Your task to perform on an android device: Go to internet settings Image 0: 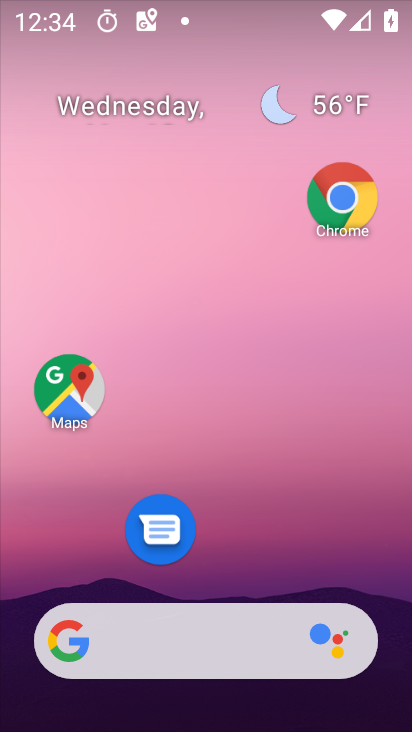
Step 0: drag from (208, 10) to (222, 532)
Your task to perform on an android device: Go to internet settings Image 1: 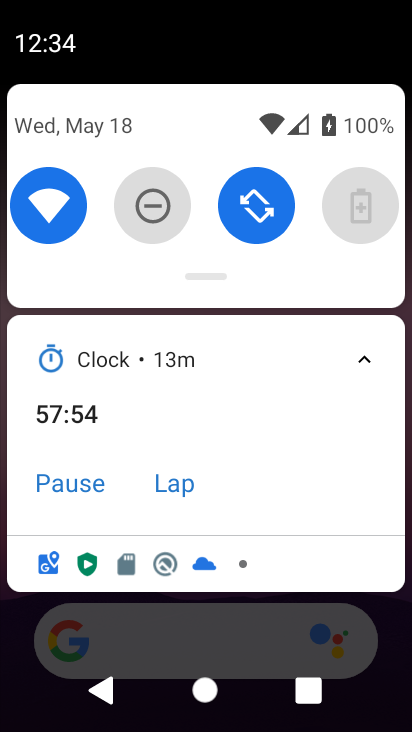
Step 1: drag from (183, 108) to (296, 537)
Your task to perform on an android device: Go to internet settings Image 2: 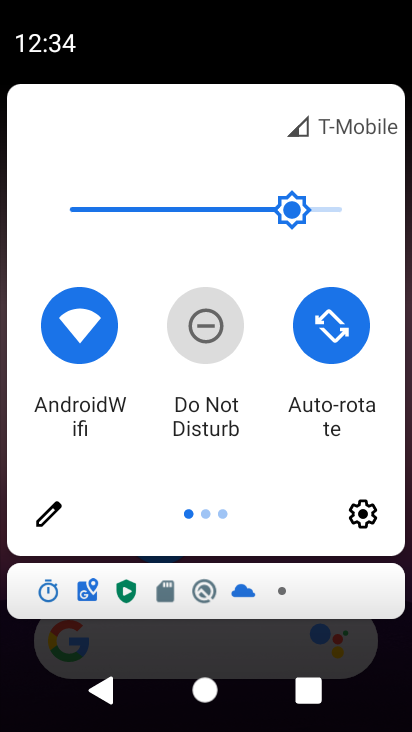
Step 2: drag from (358, 483) to (38, 485)
Your task to perform on an android device: Go to internet settings Image 3: 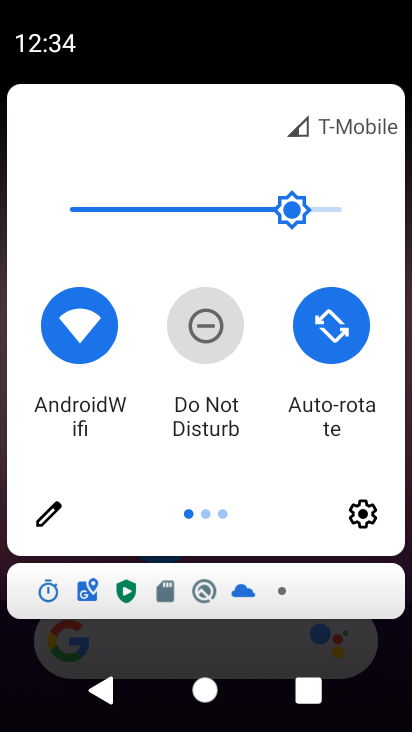
Step 3: drag from (390, 447) to (90, 459)
Your task to perform on an android device: Go to internet settings Image 4: 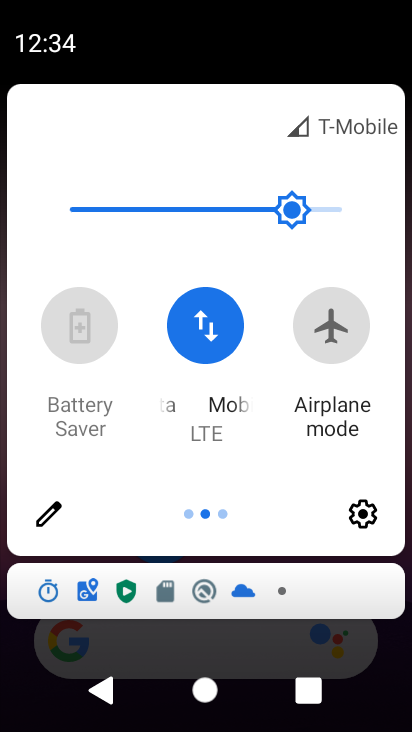
Step 4: click (205, 328)
Your task to perform on an android device: Go to internet settings Image 5: 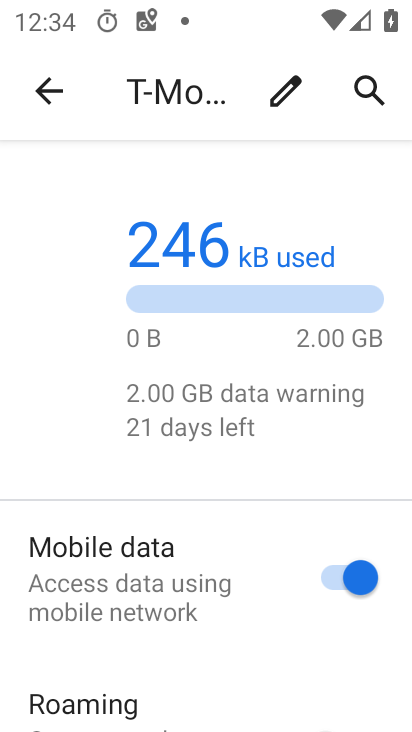
Step 5: task complete